Your task to perform on an android device: toggle javascript in the chrome app Image 0: 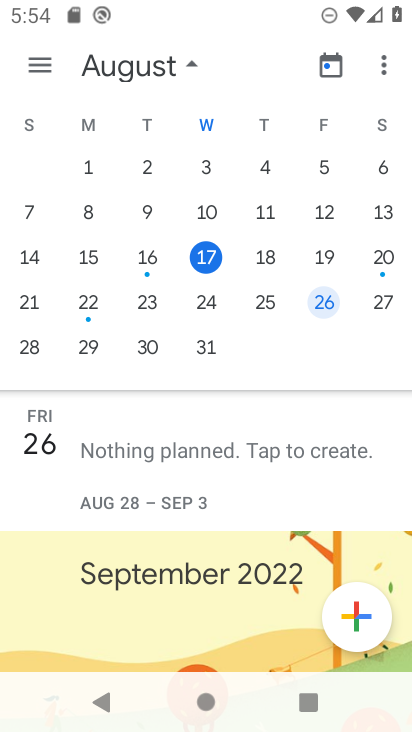
Step 0: press home button
Your task to perform on an android device: toggle javascript in the chrome app Image 1: 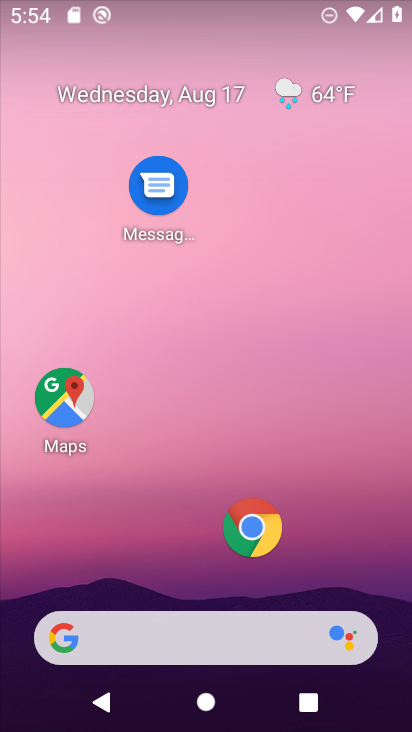
Step 1: click (257, 529)
Your task to perform on an android device: toggle javascript in the chrome app Image 2: 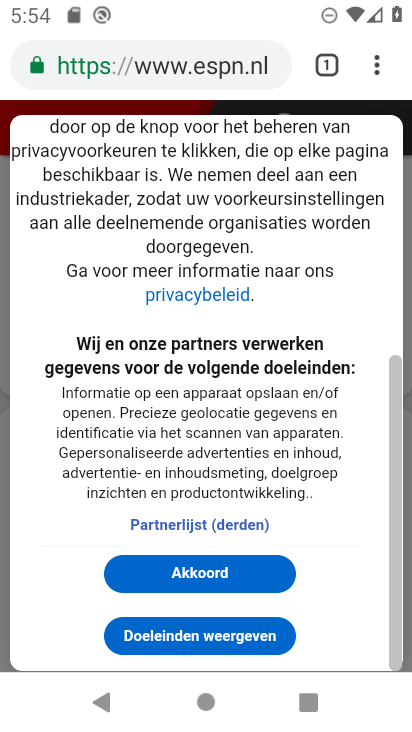
Step 2: click (370, 63)
Your task to perform on an android device: toggle javascript in the chrome app Image 3: 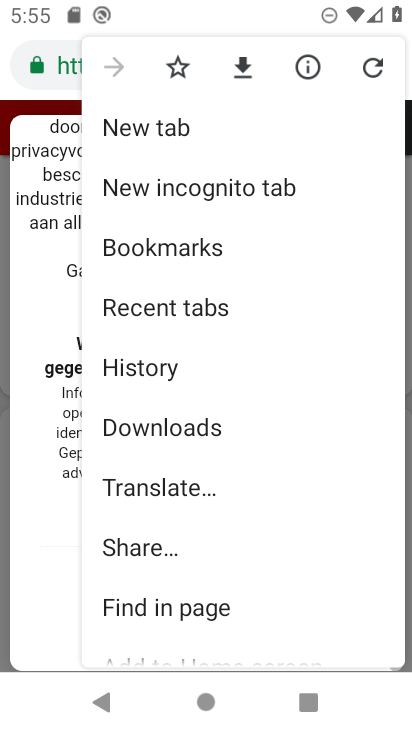
Step 3: drag from (181, 595) to (243, 228)
Your task to perform on an android device: toggle javascript in the chrome app Image 4: 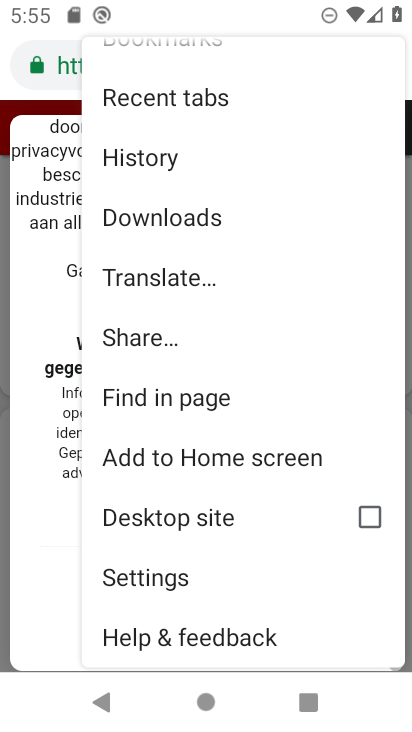
Step 4: click (131, 587)
Your task to perform on an android device: toggle javascript in the chrome app Image 5: 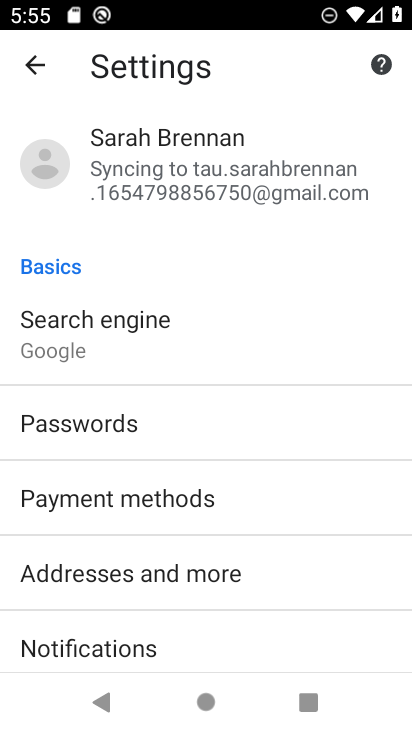
Step 5: drag from (125, 651) to (152, 383)
Your task to perform on an android device: toggle javascript in the chrome app Image 6: 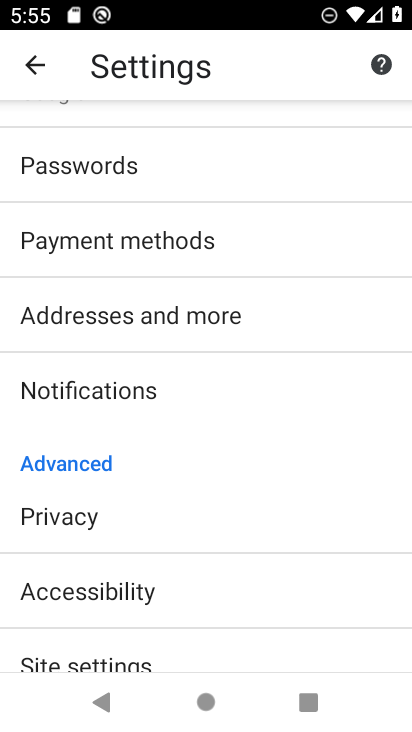
Step 6: click (71, 664)
Your task to perform on an android device: toggle javascript in the chrome app Image 7: 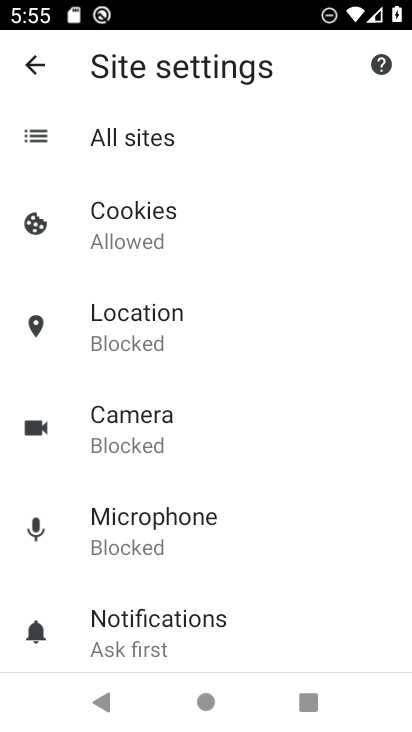
Step 7: drag from (145, 646) to (154, 379)
Your task to perform on an android device: toggle javascript in the chrome app Image 8: 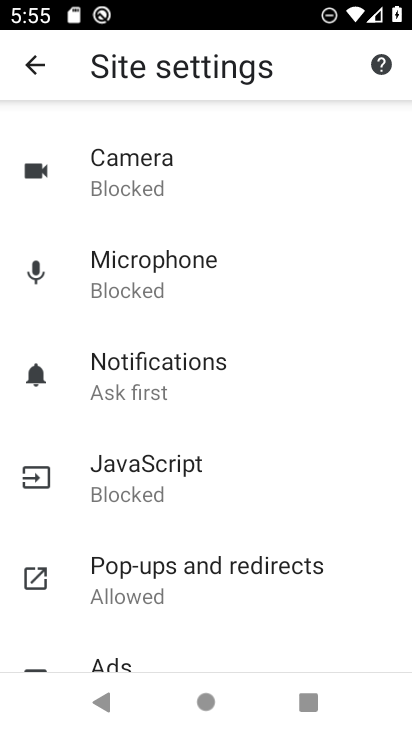
Step 8: drag from (101, 641) to (132, 388)
Your task to perform on an android device: toggle javascript in the chrome app Image 9: 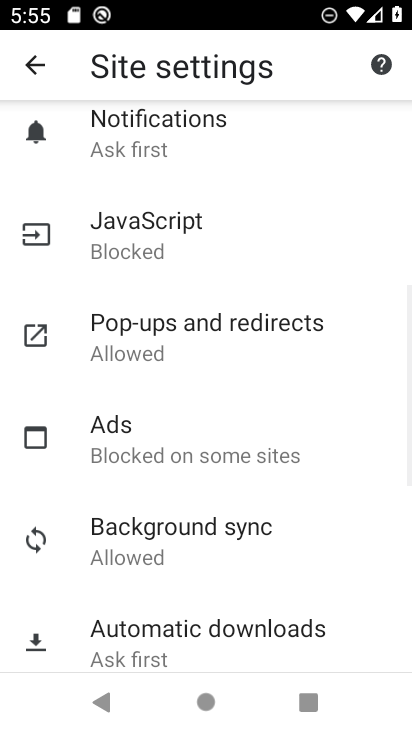
Step 9: click (137, 242)
Your task to perform on an android device: toggle javascript in the chrome app Image 10: 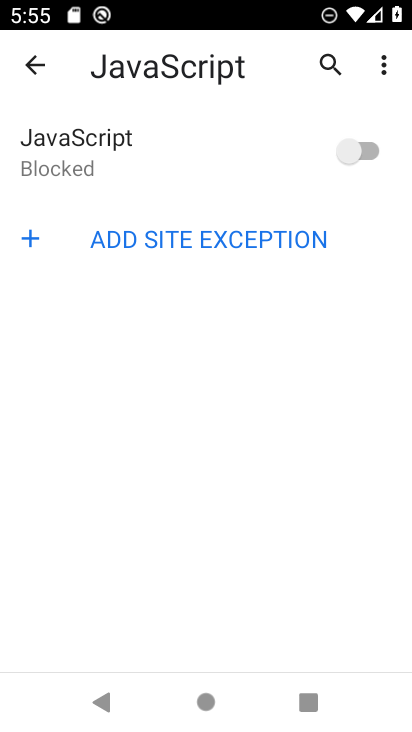
Step 10: click (349, 150)
Your task to perform on an android device: toggle javascript in the chrome app Image 11: 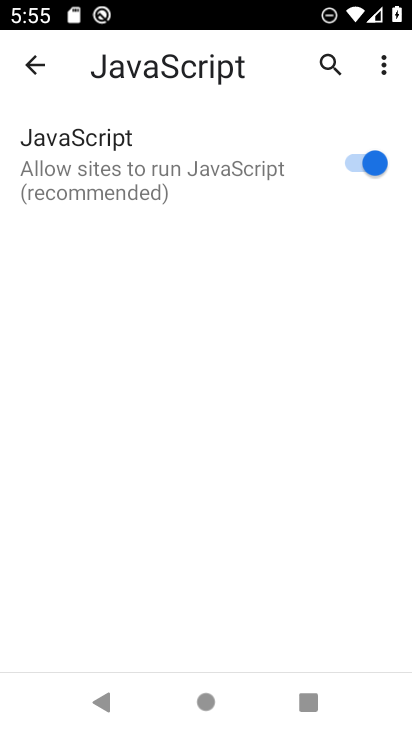
Step 11: task complete